Your task to perform on an android device: change the clock display to show seconds Image 0: 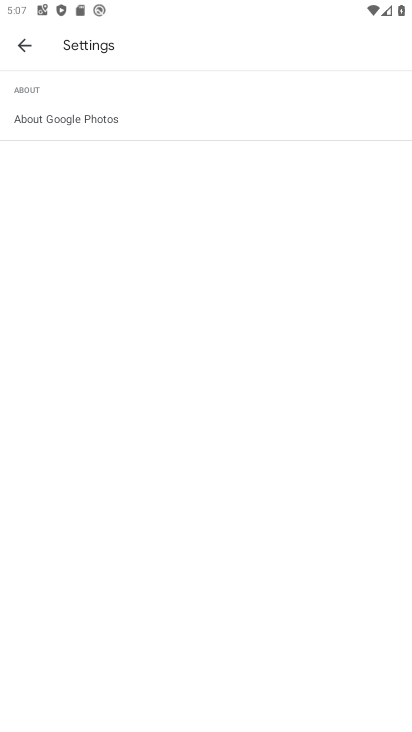
Step 0: press home button
Your task to perform on an android device: change the clock display to show seconds Image 1: 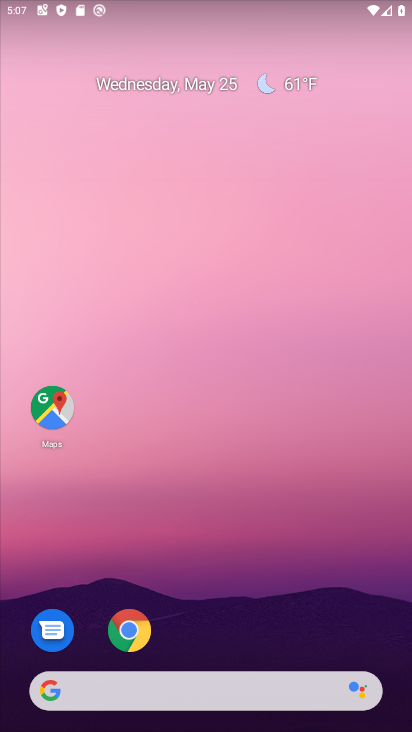
Step 1: drag from (239, 594) to (280, 12)
Your task to perform on an android device: change the clock display to show seconds Image 2: 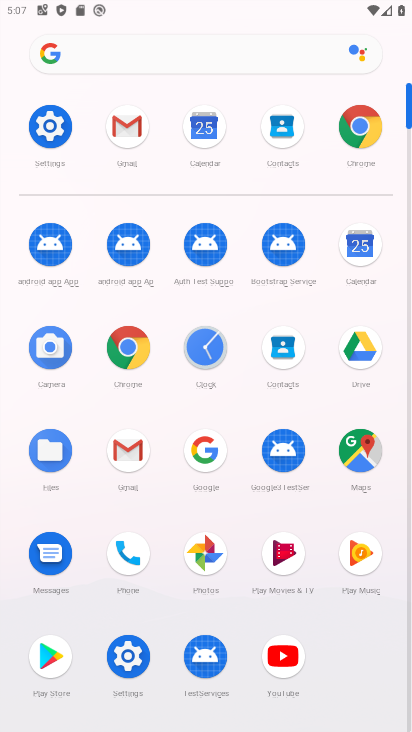
Step 2: click (202, 348)
Your task to perform on an android device: change the clock display to show seconds Image 3: 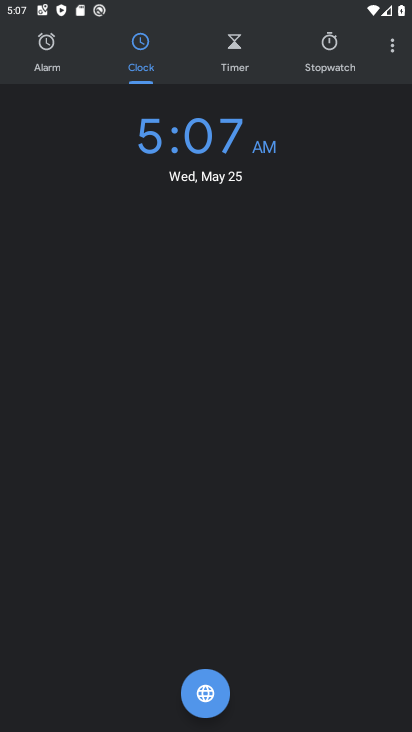
Step 3: click (390, 47)
Your task to perform on an android device: change the clock display to show seconds Image 4: 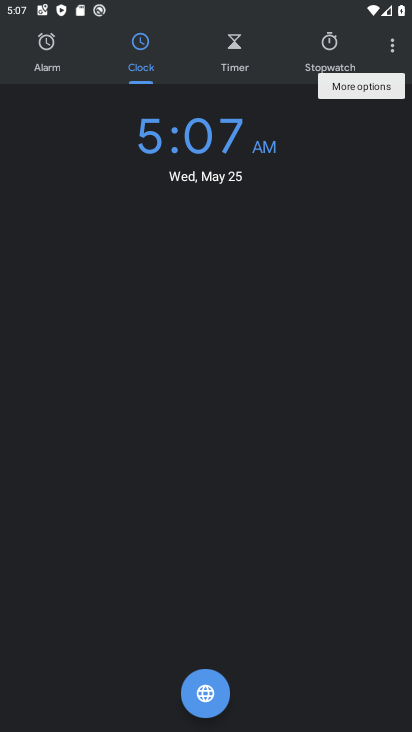
Step 4: click (390, 47)
Your task to perform on an android device: change the clock display to show seconds Image 5: 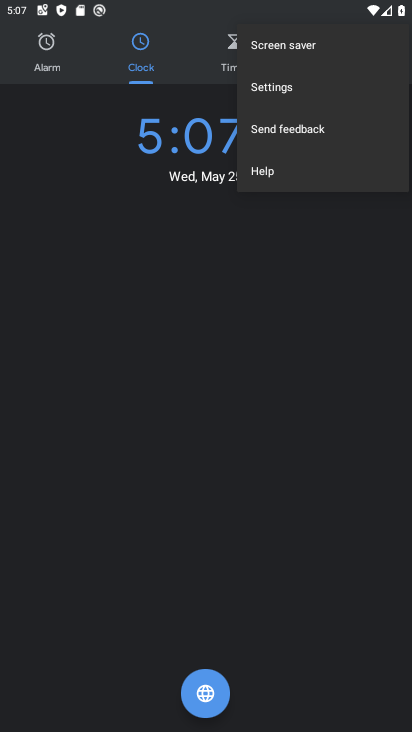
Step 5: click (275, 84)
Your task to perform on an android device: change the clock display to show seconds Image 6: 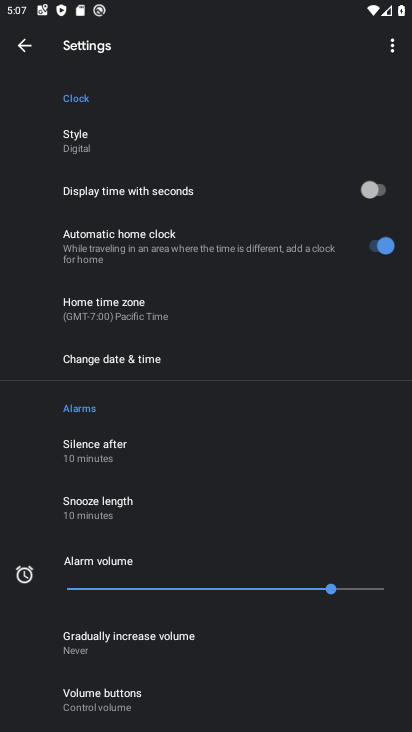
Step 6: click (96, 141)
Your task to perform on an android device: change the clock display to show seconds Image 7: 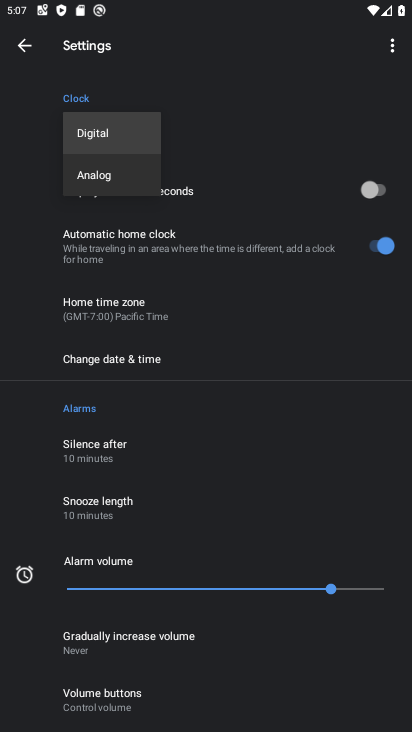
Step 7: click (119, 138)
Your task to perform on an android device: change the clock display to show seconds Image 8: 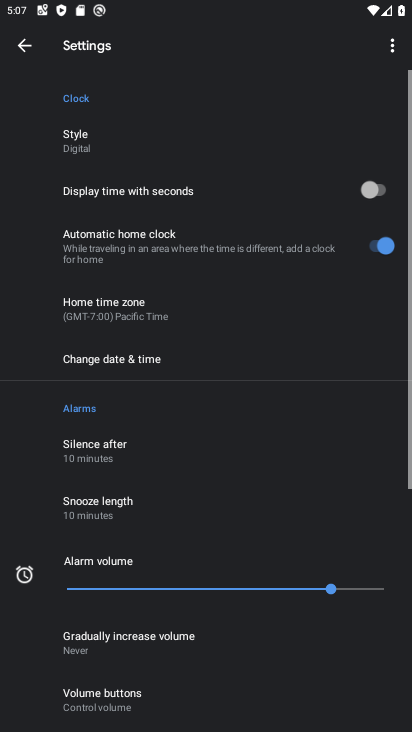
Step 8: click (372, 182)
Your task to perform on an android device: change the clock display to show seconds Image 9: 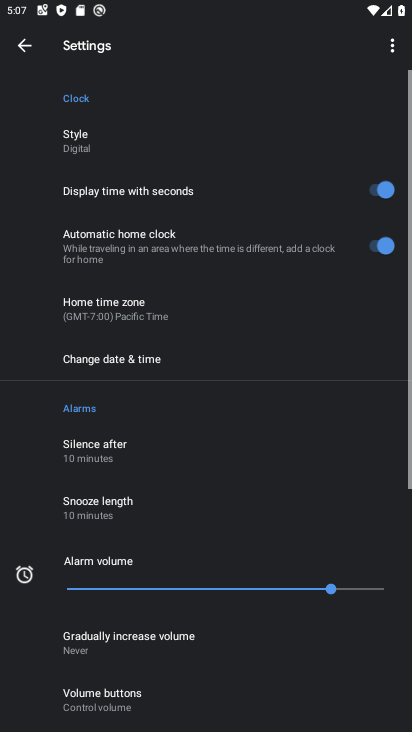
Step 9: task complete